Your task to perform on an android device: turn on bluetooth scan Image 0: 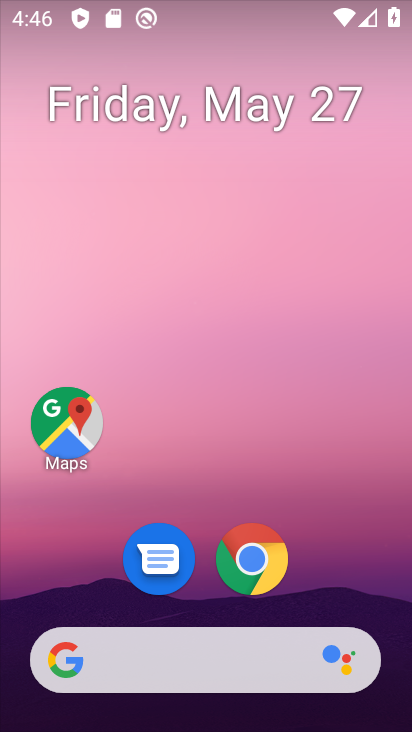
Step 0: drag from (187, 497) to (179, 175)
Your task to perform on an android device: turn on bluetooth scan Image 1: 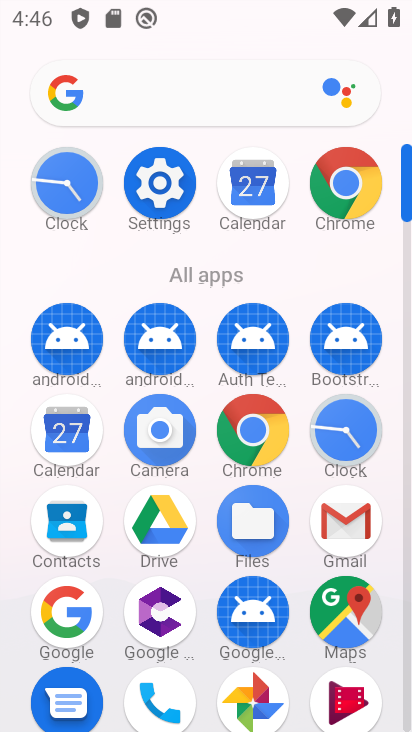
Step 1: click (169, 196)
Your task to perform on an android device: turn on bluetooth scan Image 2: 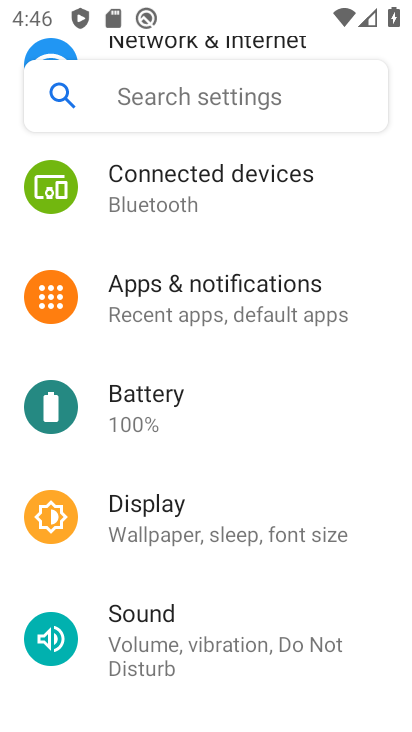
Step 2: drag from (240, 563) to (222, 318)
Your task to perform on an android device: turn on bluetooth scan Image 3: 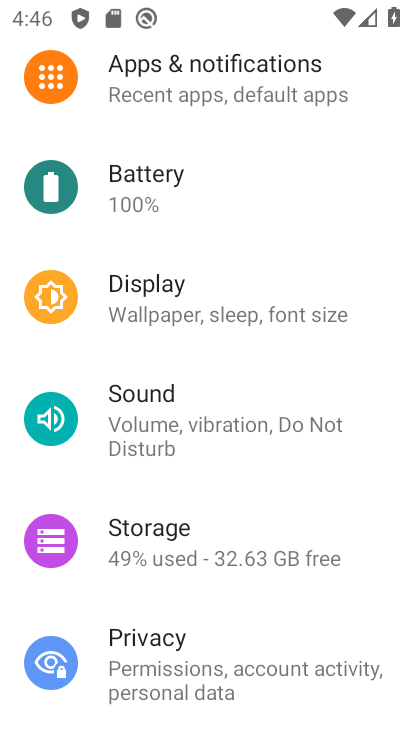
Step 3: drag from (202, 535) to (196, 337)
Your task to perform on an android device: turn on bluetooth scan Image 4: 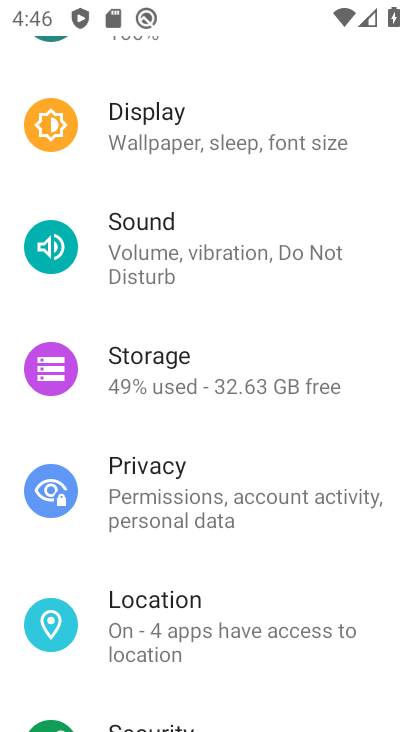
Step 4: click (164, 606)
Your task to perform on an android device: turn on bluetooth scan Image 5: 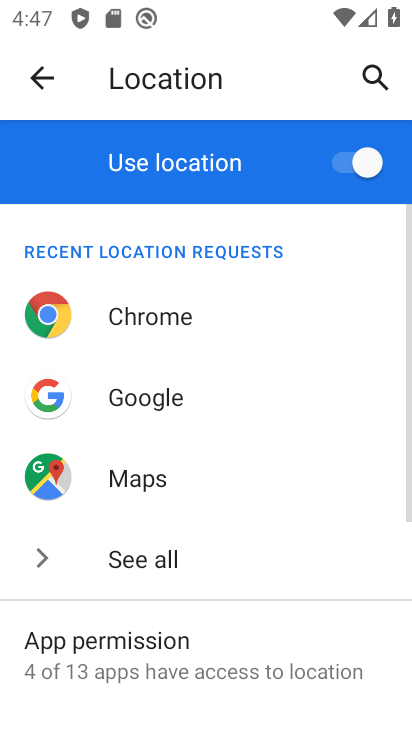
Step 5: drag from (164, 606) to (138, 331)
Your task to perform on an android device: turn on bluetooth scan Image 6: 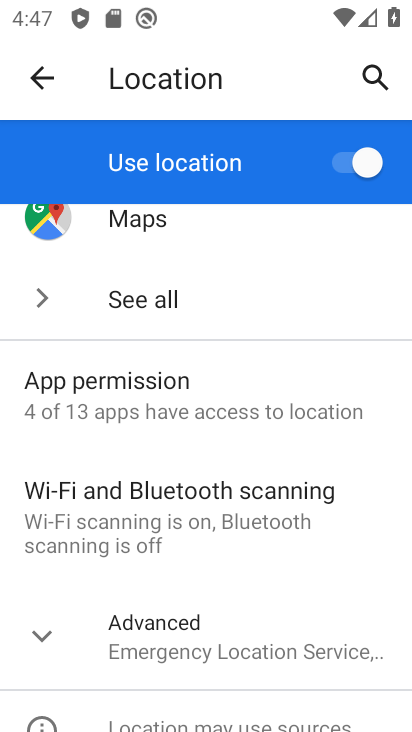
Step 6: click (171, 487)
Your task to perform on an android device: turn on bluetooth scan Image 7: 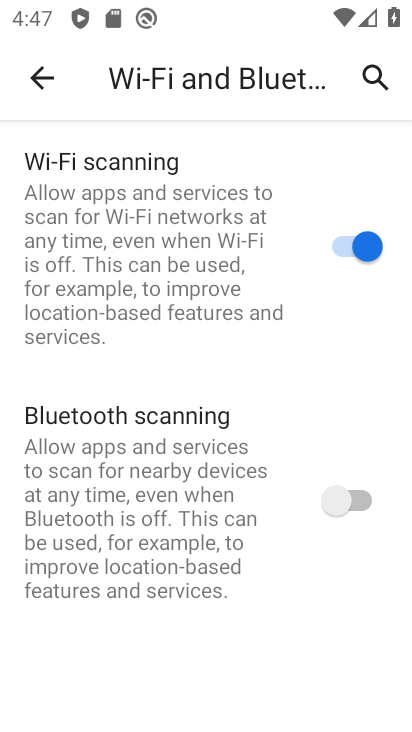
Step 7: click (196, 474)
Your task to perform on an android device: turn on bluetooth scan Image 8: 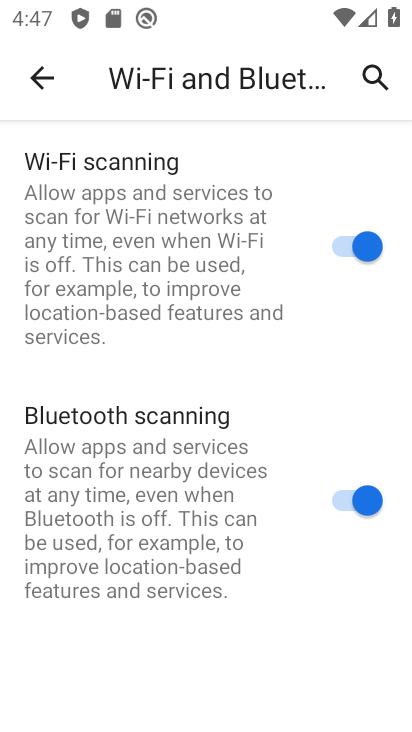
Step 8: task complete